Your task to perform on an android device: turn off location Image 0: 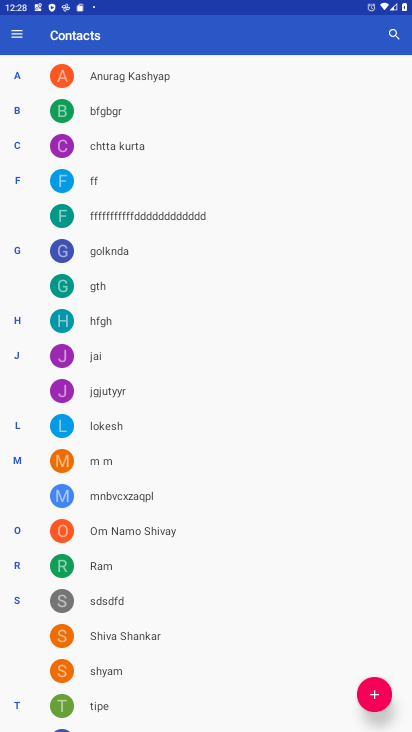
Step 0: press home button
Your task to perform on an android device: turn off location Image 1: 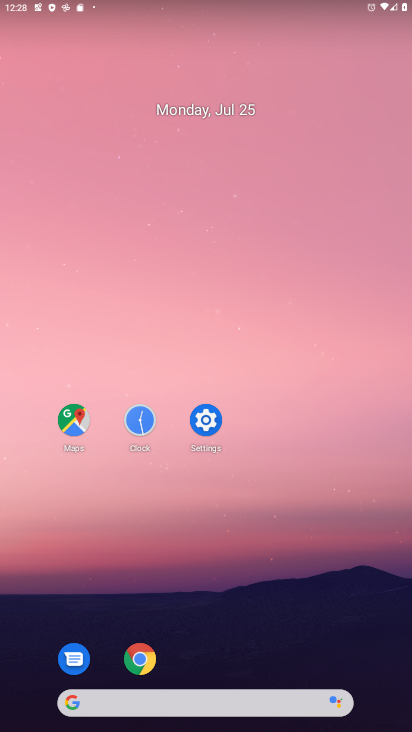
Step 1: click (200, 423)
Your task to perform on an android device: turn off location Image 2: 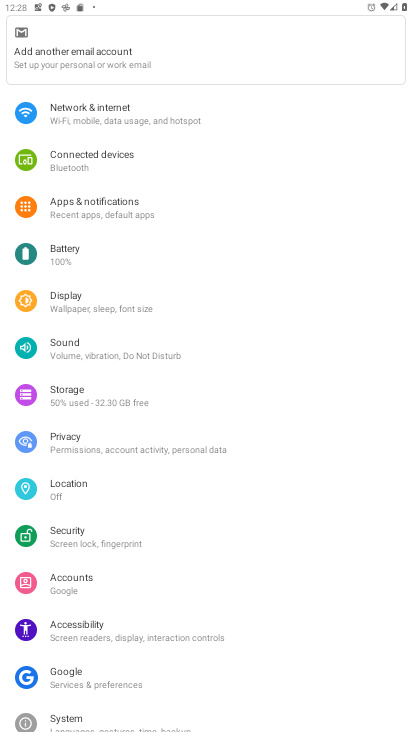
Step 2: click (68, 483)
Your task to perform on an android device: turn off location Image 3: 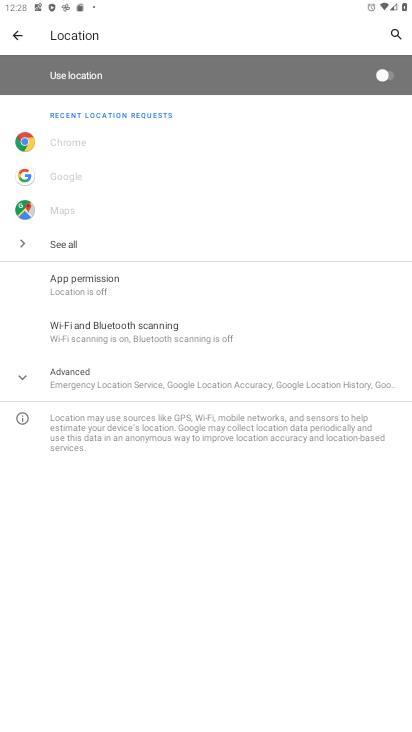
Step 3: task complete